Your task to perform on an android device: open device folders in google photos Image 0: 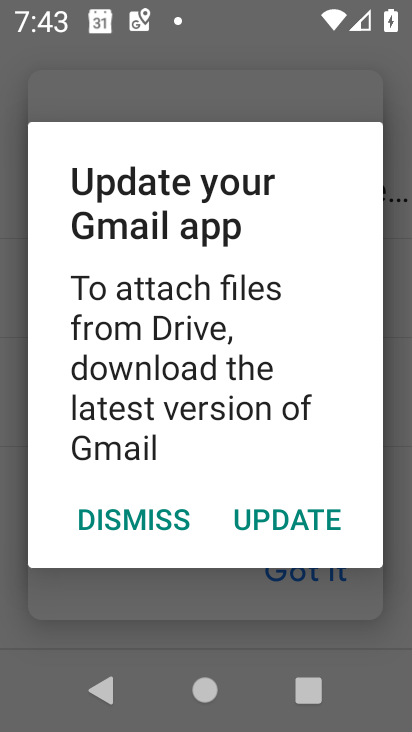
Step 0: press home button
Your task to perform on an android device: open device folders in google photos Image 1: 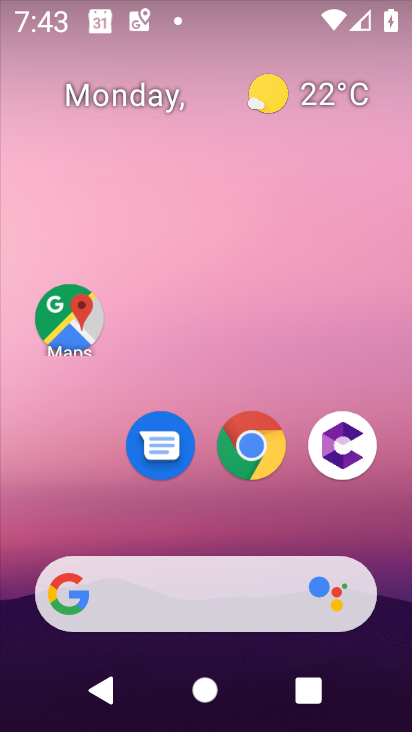
Step 1: drag from (332, 342) to (330, 12)
Your task to perform on an android device: open device folders in google photos Image 2: 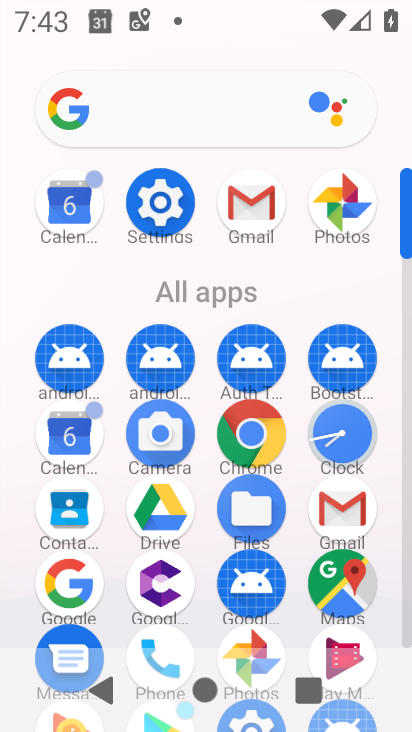
Step 2: click (352, 210)
Your task to perform on an android device: open device folders in google photos Image 3: 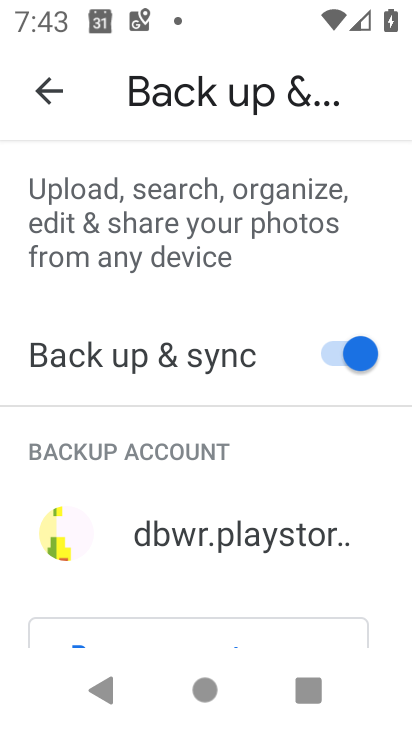
Step 3: press back button
Your task to perform on an android device: open device folders in google photos Image 4: 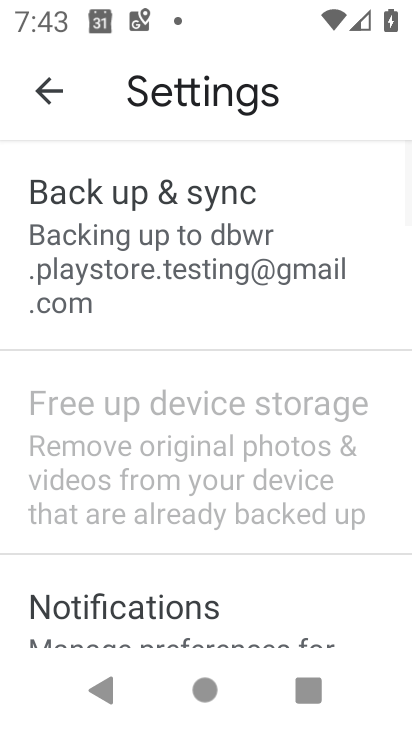
Step 4: press back button
Your task to perform on an android device: open device folders in google photos Image 5: 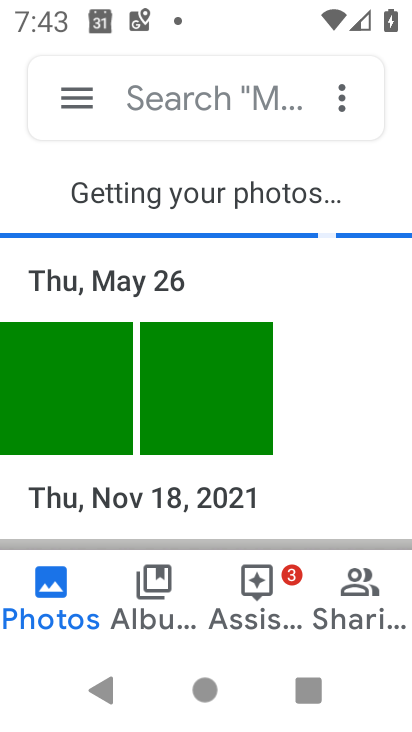
Step 5: click (73, 99)
Your task to perform on an android device: open device folders in google photos Image 6: 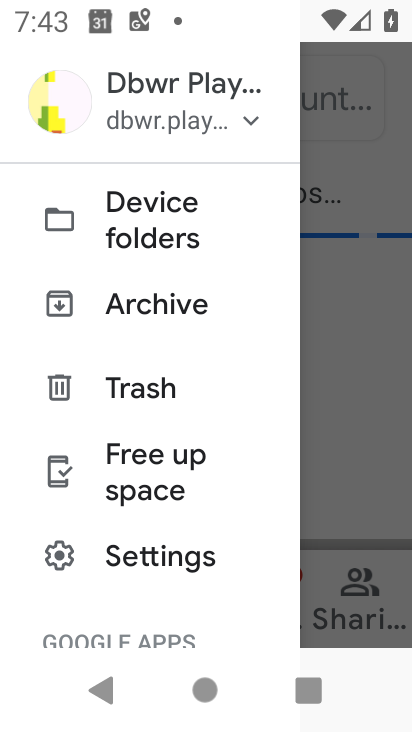
Step 6: click (125, 206)
Your task to perform on an android device: open device folders in google photos Image 7: 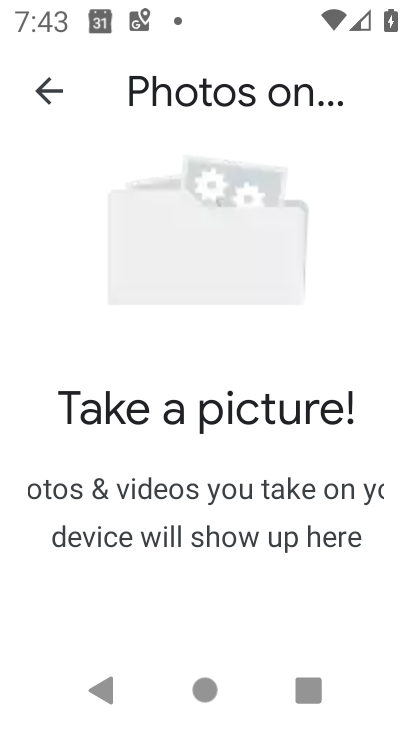
Step 7: task complete